Your task to perform on an android device: Go to CNN.com Image 0: 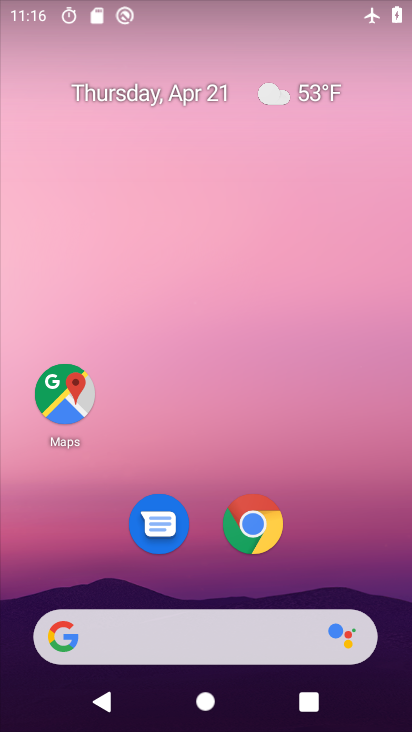
Step 0: click (245, 635)
Your task to perform on an android device: Go to CNN.com Image 1: 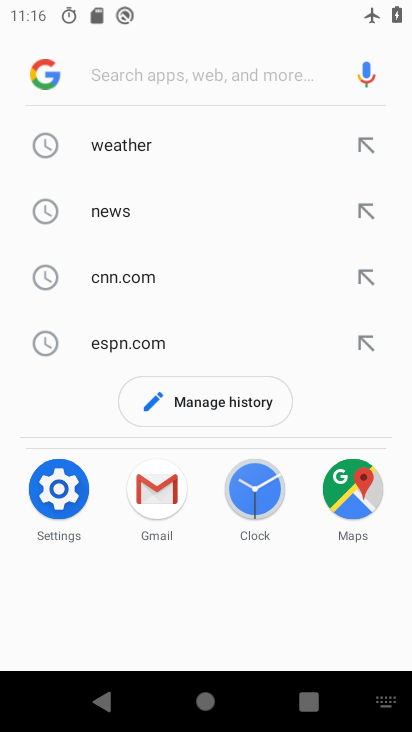
Step 1: click (142, 270)
Your task to perform on an android device: Go to CNN.com Image 2: 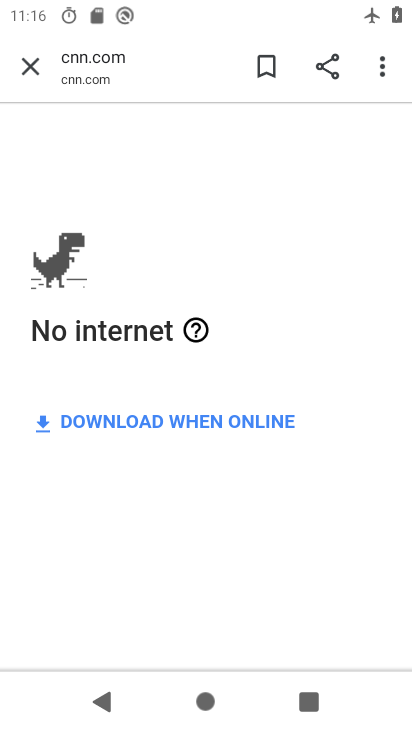
Step 2: task complete